Your task to perform on an android device: Go to sound settings Image 0: 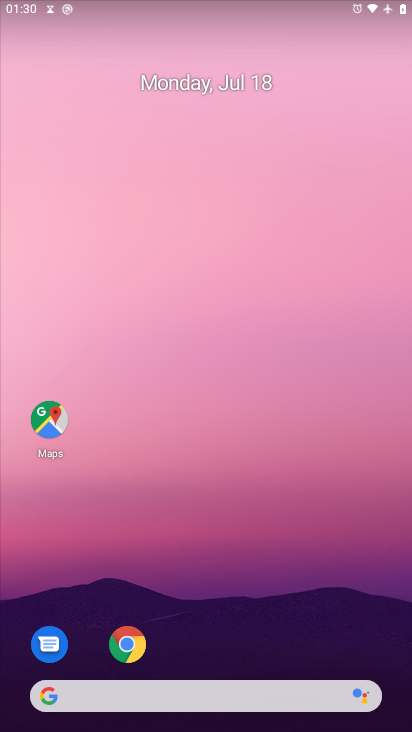
Step 0: press home button
Your task to perform on an android device: Go to sound settings Image 1: 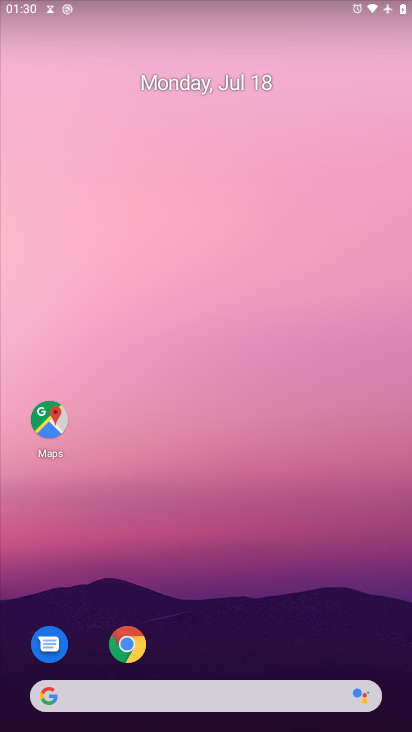
Step 1: drag from (212, 628) to (218, 81)
Your task to perform on an android device: Go to sound settings Image 2: 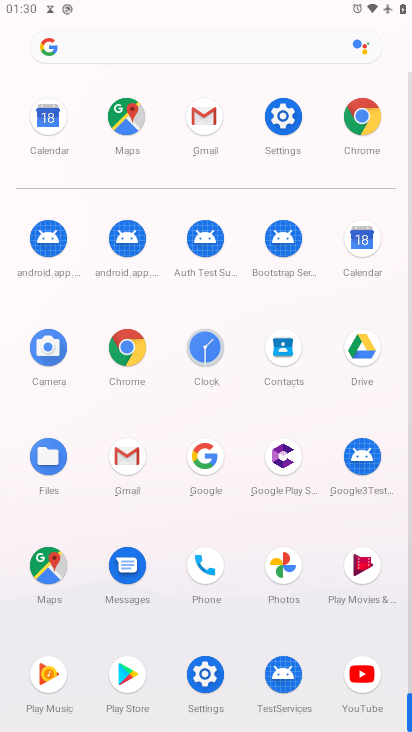
Step 2: click (291, 140)
Your task to perform on an android device: Go to sound settings Image 3: 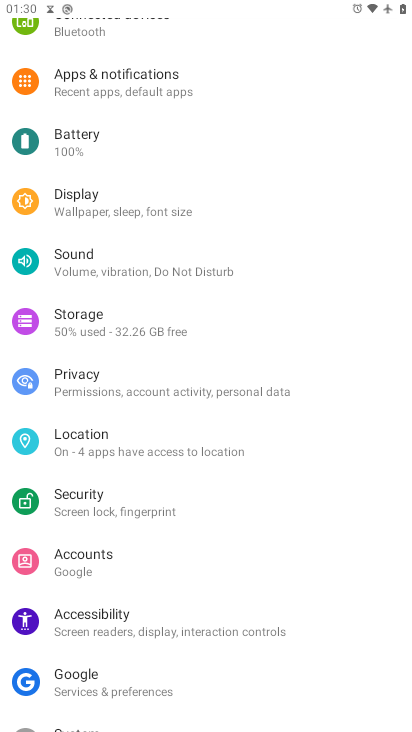
Step 3: click (92, 271)
Your task to perform on an android device: Go to sound settings Image 4: 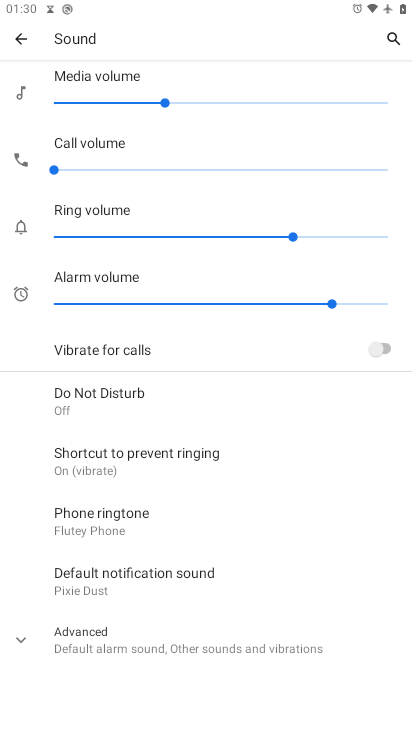
Step 4: task complete